Your task to perform on an android device: Open ESPN.com Image 0: 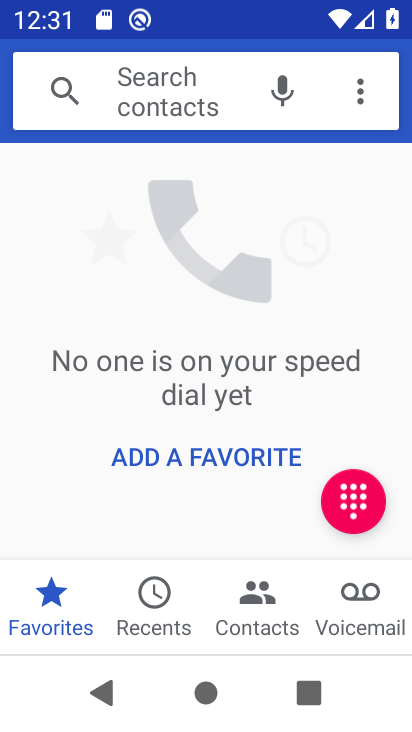
Step 0: click (199, 710)
Your task to perform on an android device: Open ESPN.com Image 1: 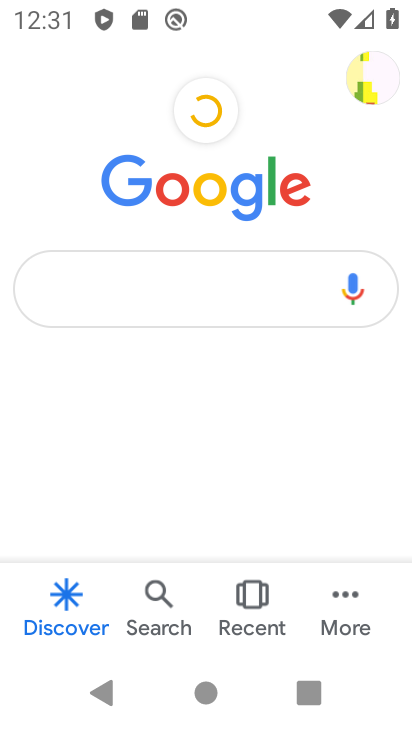
Step 1: click (221, 692)
Your task to perform on an android device: Open ESPN.com Image 2: 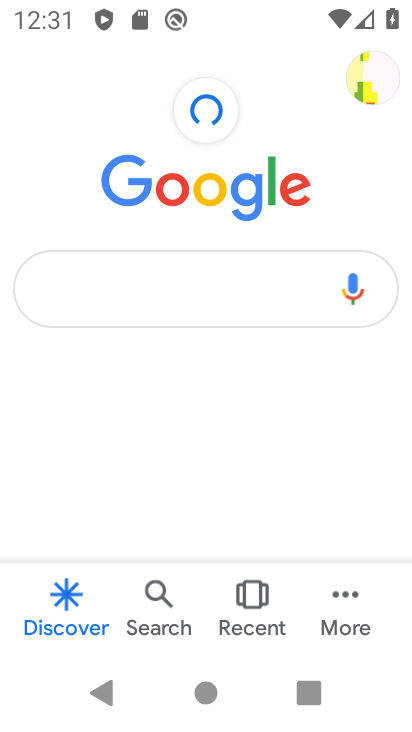
Step 2: click (216, 684)
Your task to perform on an android device: Open ESPN.com Image 3: 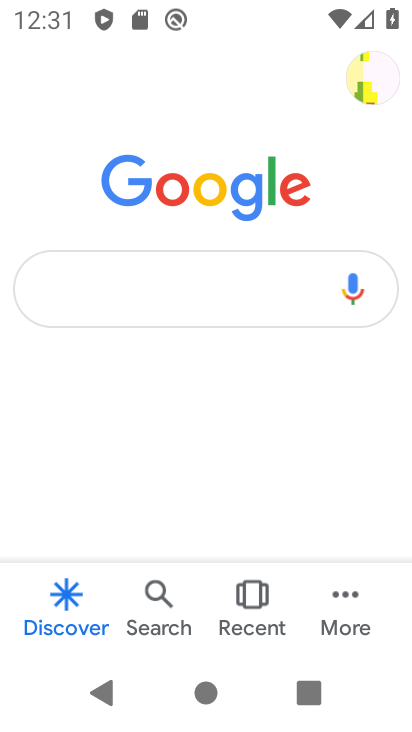
Step 3: click (216, 681)
Your task to perform on an android device: Open ESPN.com Image 4: 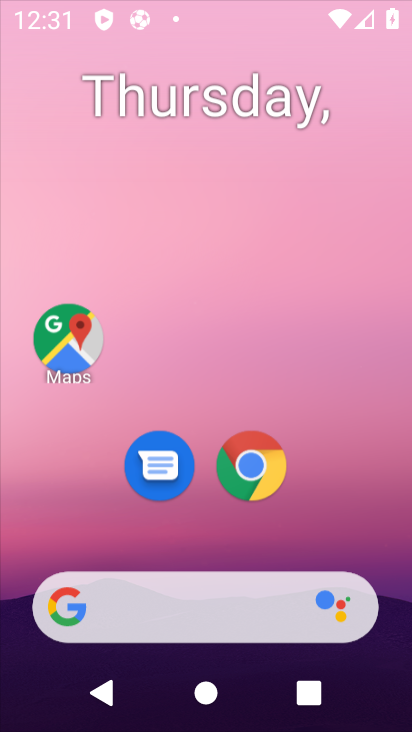
Step 4: press home button
Your task to perform on an android device: Open ESPN.com Image 5: 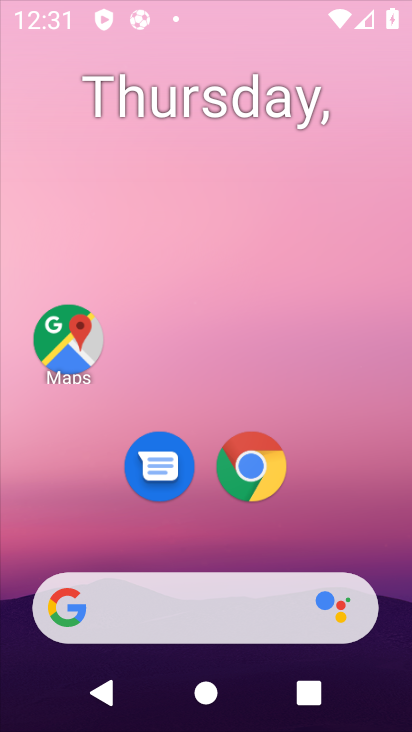
Step 5: click (253, 488)
Your task to perform on an android device: Open ESPN.com Image 6: 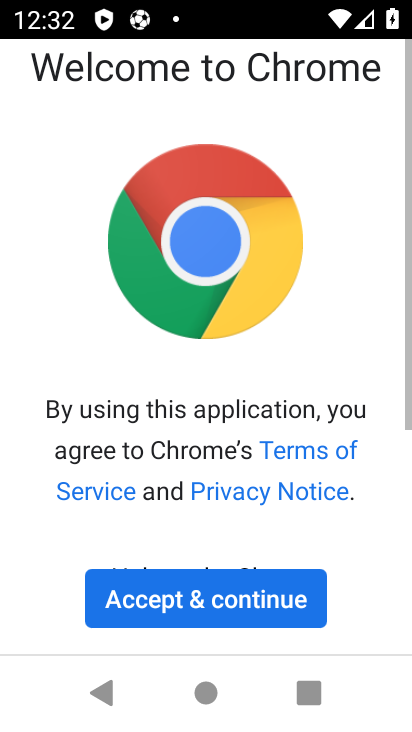
Step 6: click (199, 598)
Your task to perform on an android device: Open ESPN.com Image 7: 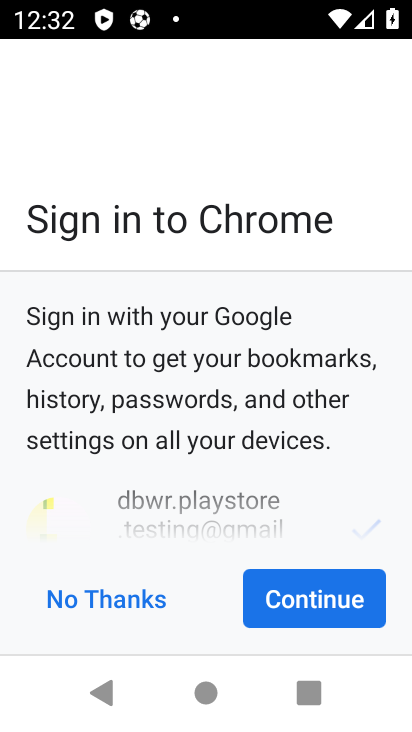
Step 7: click (144, 611)
Your task to perform on an android device: Open ESPN.com Image 8: 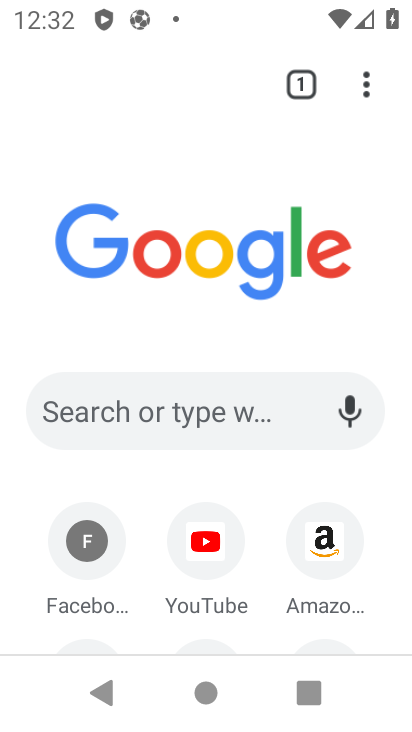
Step 8: drag from (384, 510) to (396, 285)
Your task to perform on an android device: Open ESPN.com Image 9: 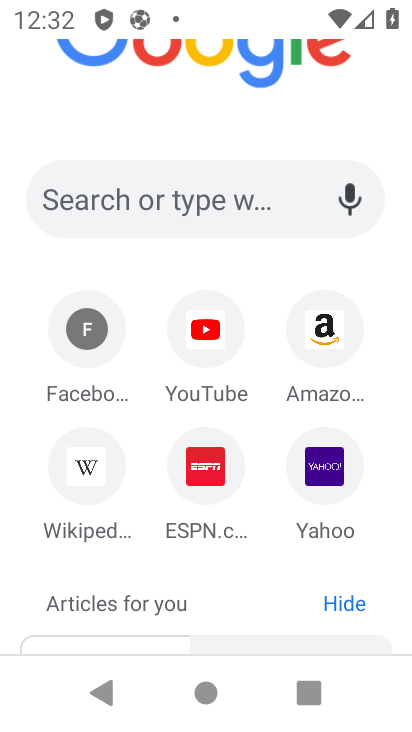
Step 9: drag from (377, 538) to (410, 288)
Your task to perform on an android device: Open ESPN.com Image 10: 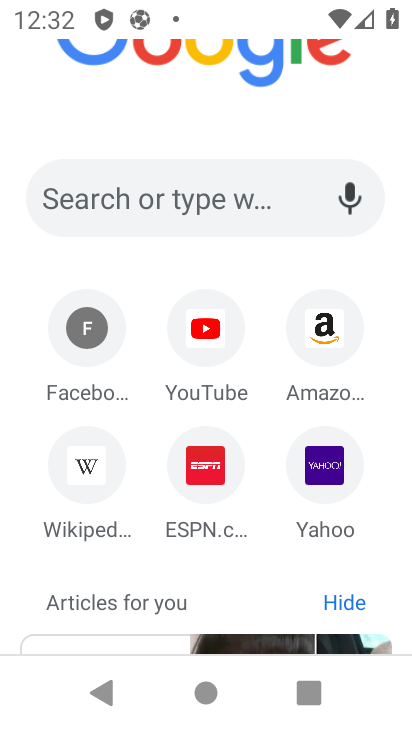
Step 10: click (211, 450)
Your task to perform on an android device: Open ESPN.com Image 11: 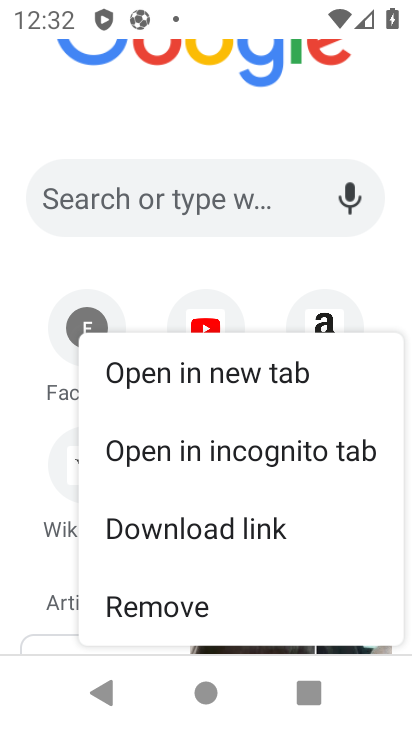
Step 11: click (402, 292)
Your task to perform on an android device: Open ESPN.com Image 12: 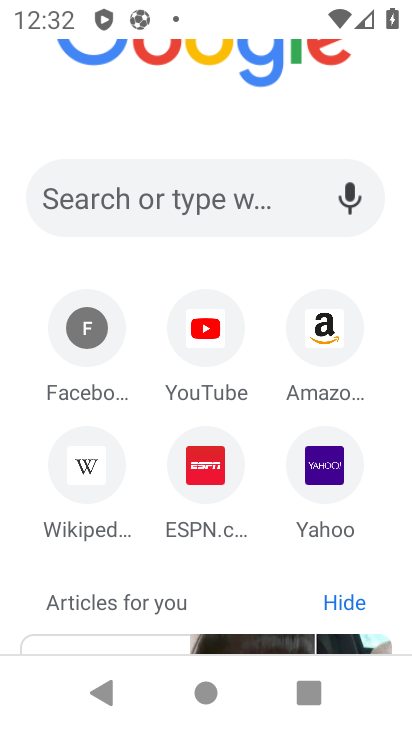
Step 12: click (197, 482)
Your task to perform on an android device: Open ESPN.com Image 13: 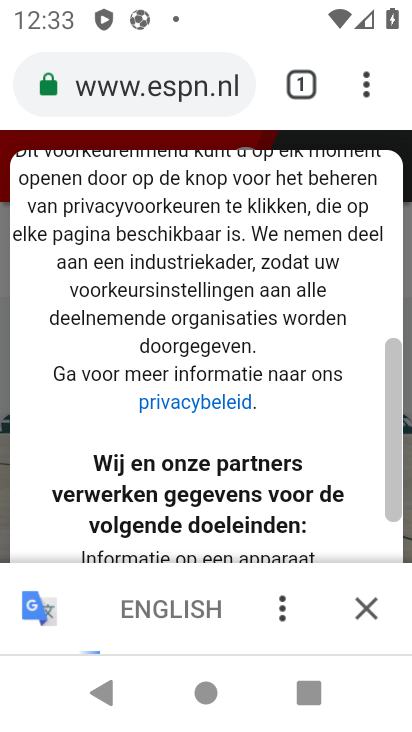
Step 13: task complete